Your task to perform on an android device: Look up the best rated coffee maker on Lowe's. Image 0: 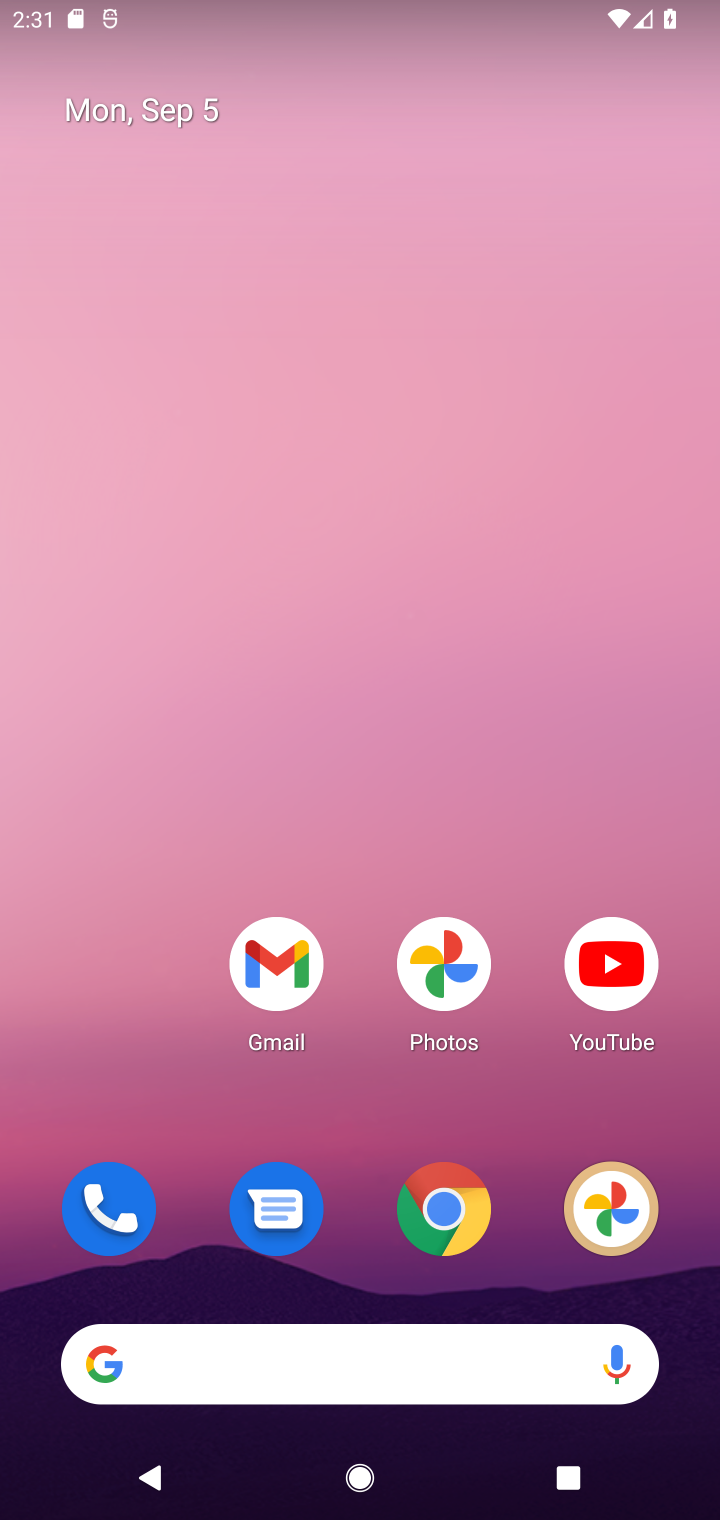
Step 0: drag from (298, 1127) to (298, 516)
Your task to perform on an android device: Look up the best rated coffee maker on Lowe's. Image 1: 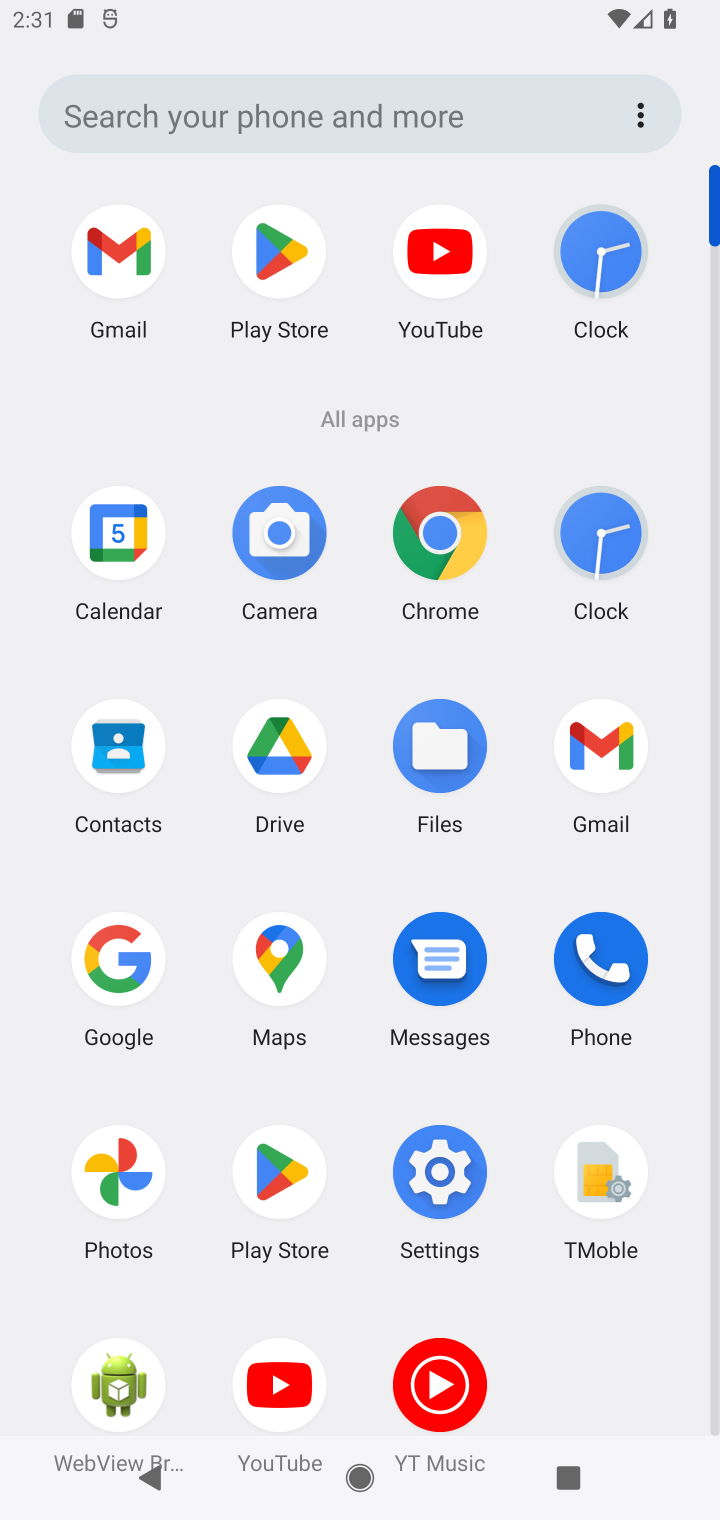
Step 1: click (106, 950)
Your task to perform on an android device: Look up the best rated coffee maker on Lowe's. Image 2: 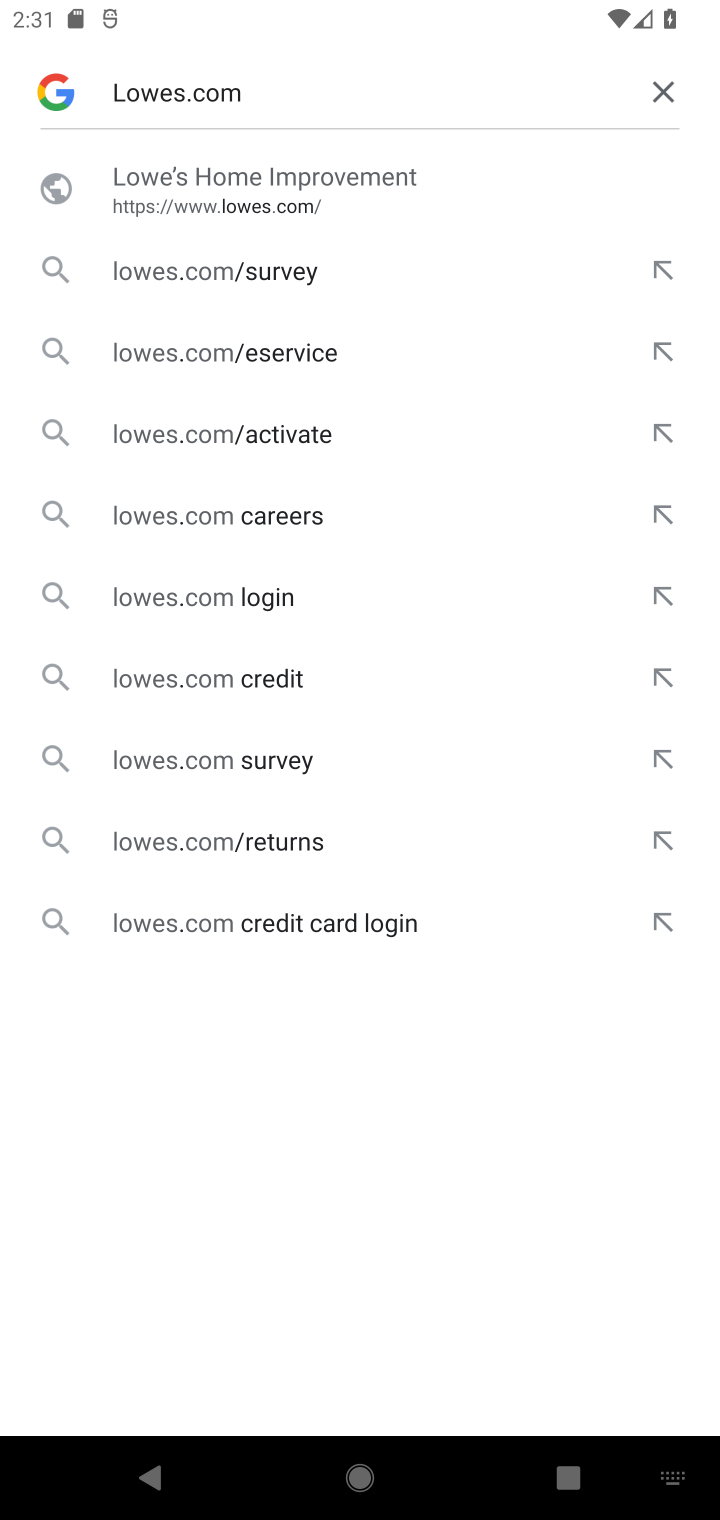
Step 2: click (204, 182)
Your task to perform on an android device: Look up the best rated coffee maker on Lowe's. Image 3: 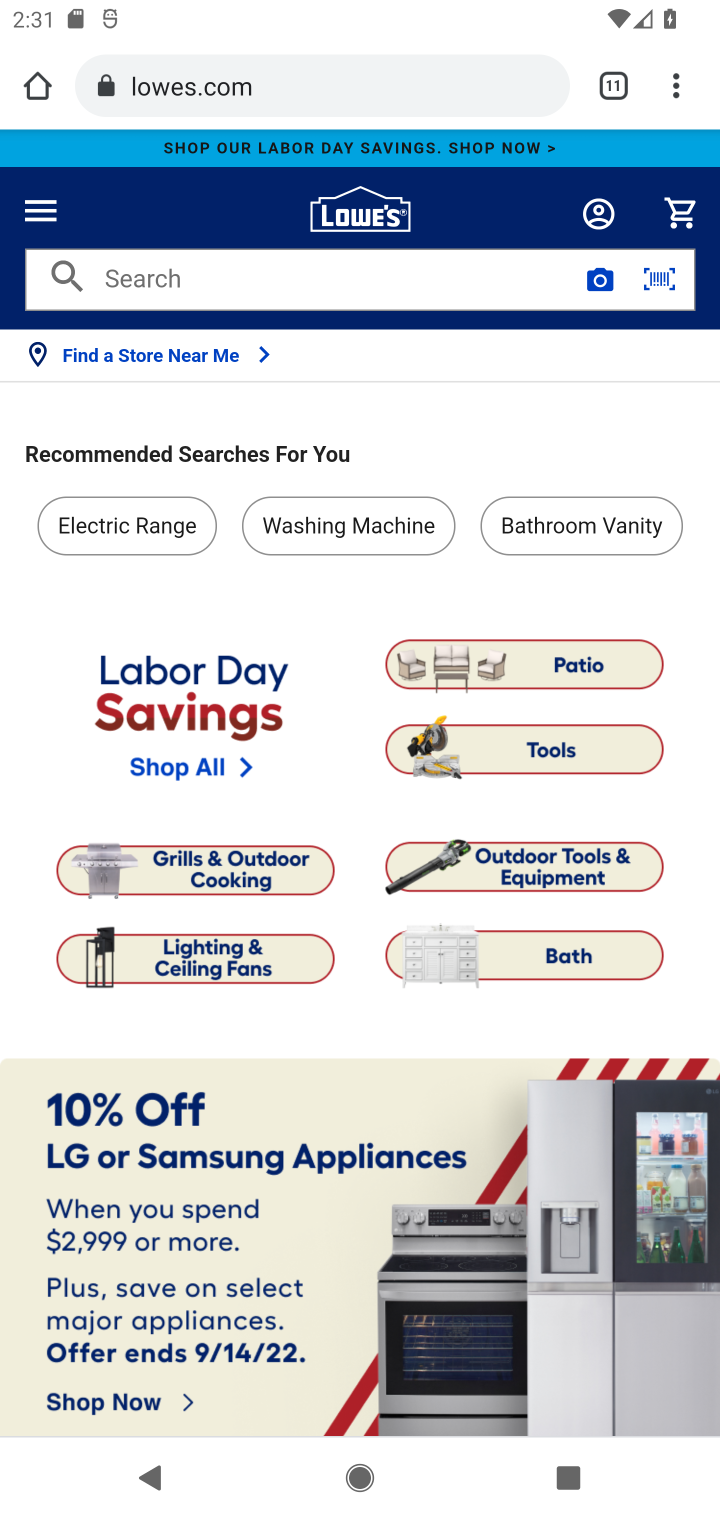
Step 3: click (156, 280)
Your task to perform on an android device: Look up the best rated coffee maker on Lowe's. Image 4: 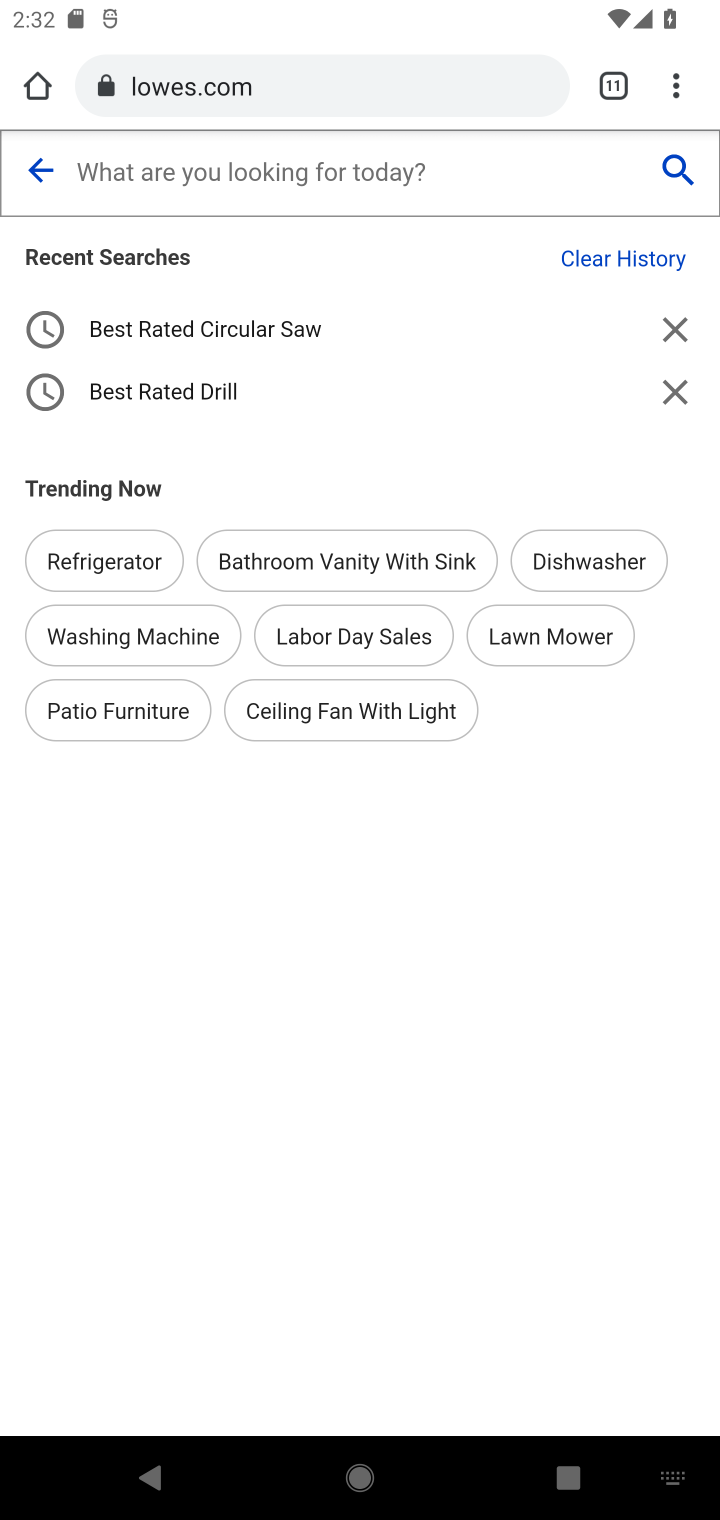
Step 4: type "best rated coffee maker"
Your task to perform on an android device: Look up the best rated coffee maker on Lowe's. Image 5: 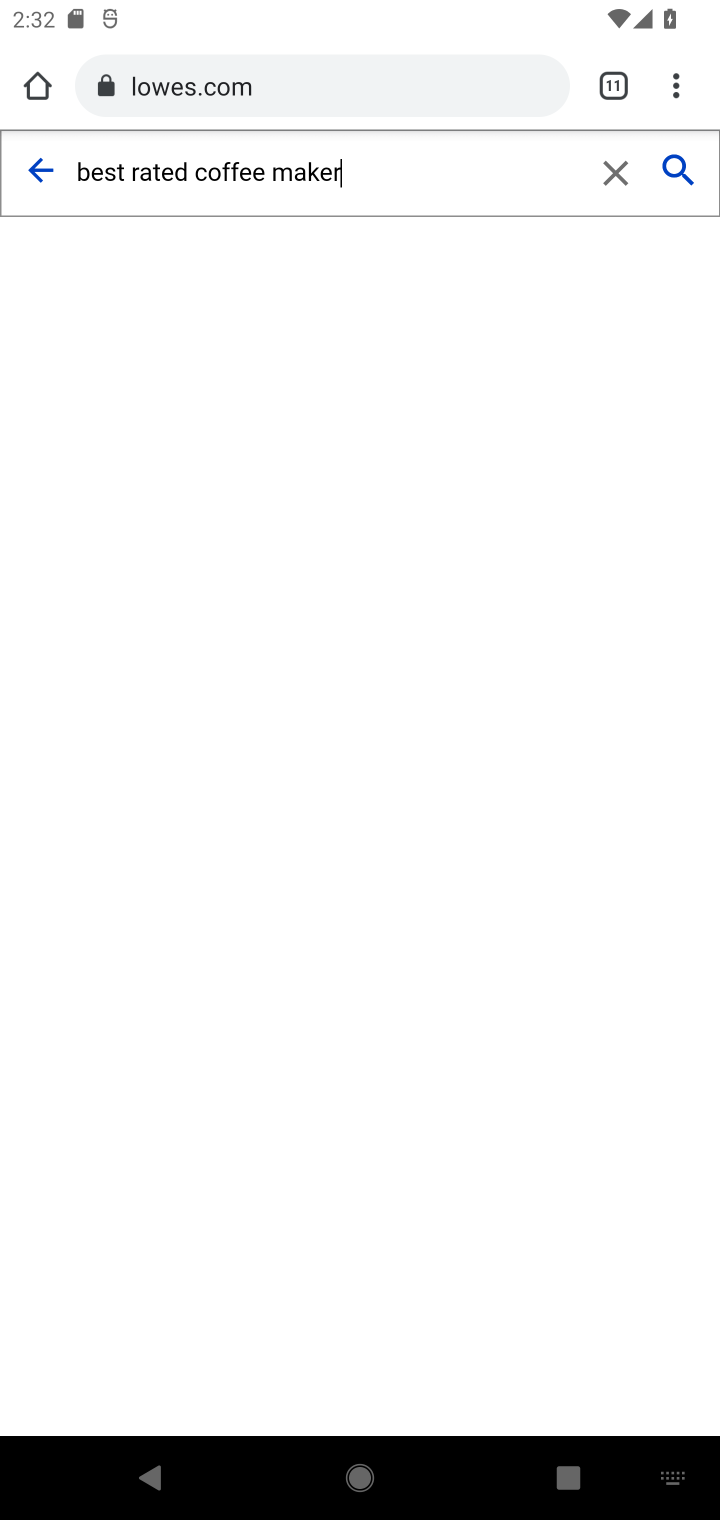
Step 5: click (673, 167)
Your task to perform on an android device: Look up the best rated coffee maker on Lowe's. Image 6: 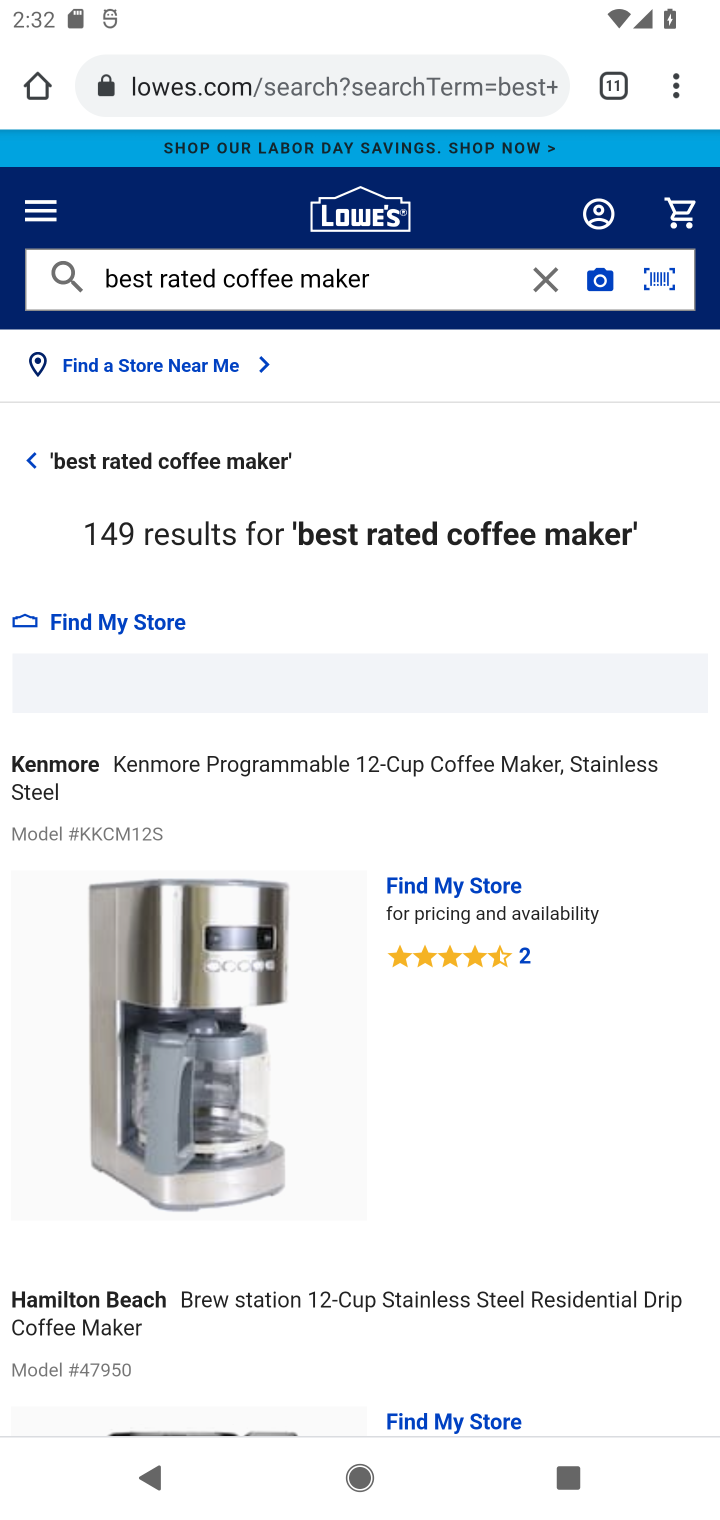
Step 6: click (325, 710)
Your task to perform on an android device: Look up the best rated coffee maker on Lowe's. Image 7: 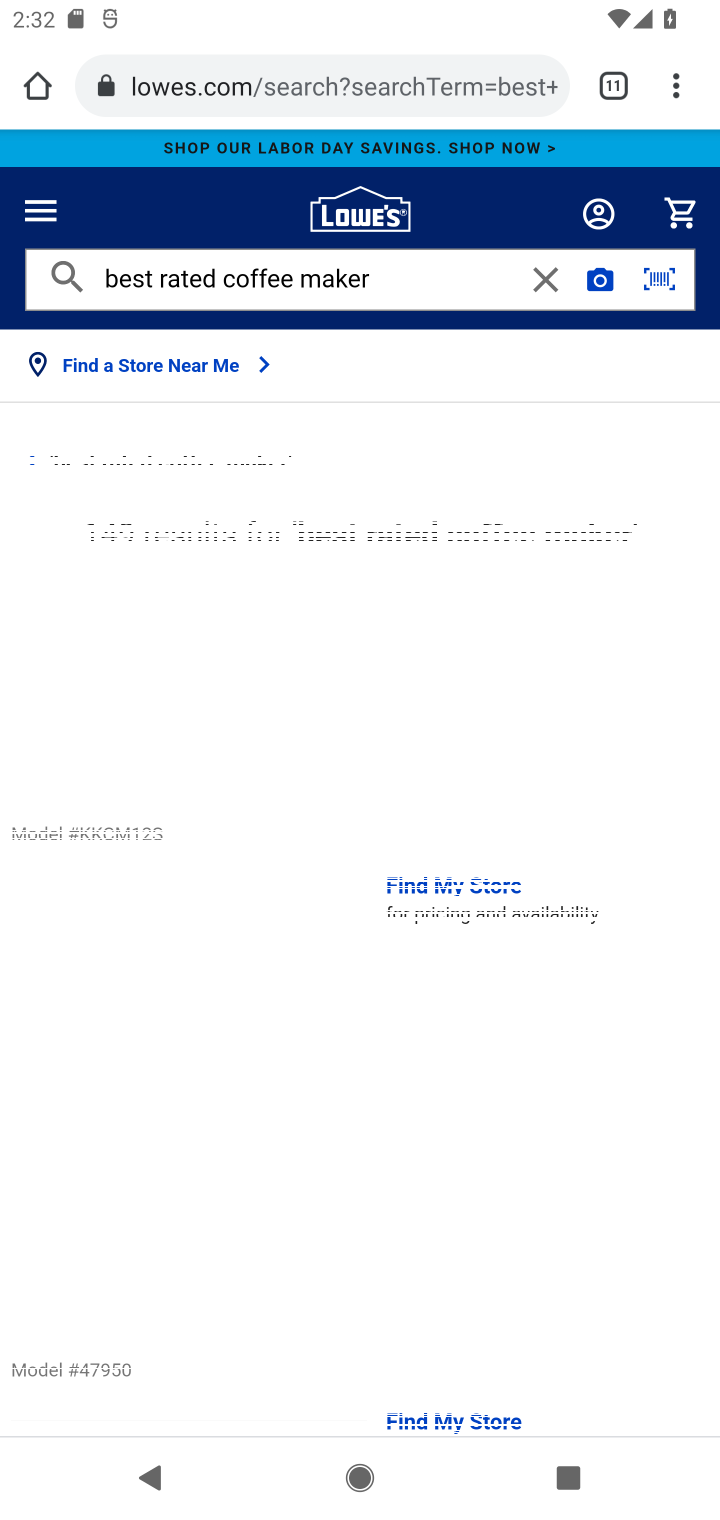
Step 7: task complete